Your task to perform on an android device: Go to ESPN.com Image 0: 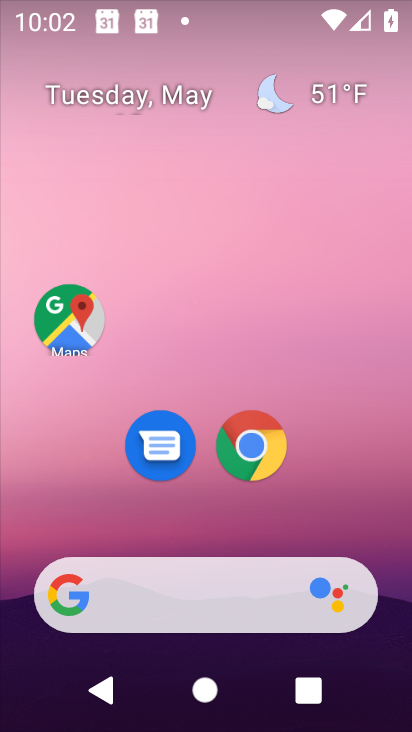
Step 0: click (259, 452)
Your task to perform on an android device: Go to ESPN.com Image 1: 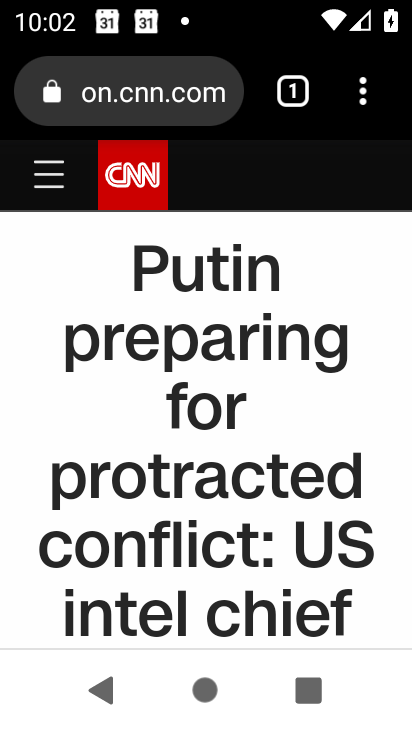
Step 1: click (157, 111)
Your task to perform on an android device: Go to ESPN.com Image 2: 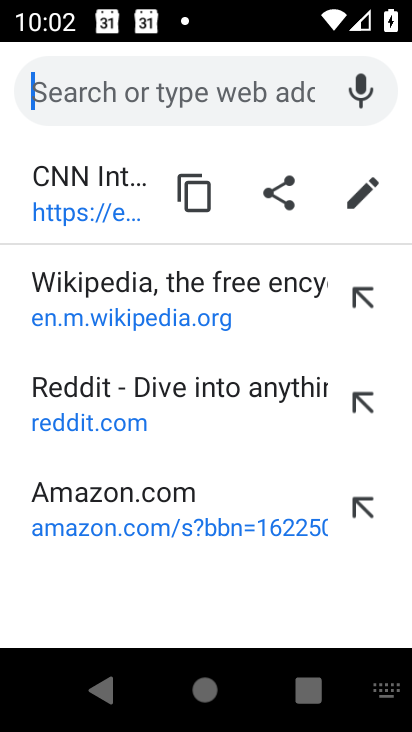
Step 2: type "espn.com"
Your task to perform on an android device: Go to ESPN.com Image 3: 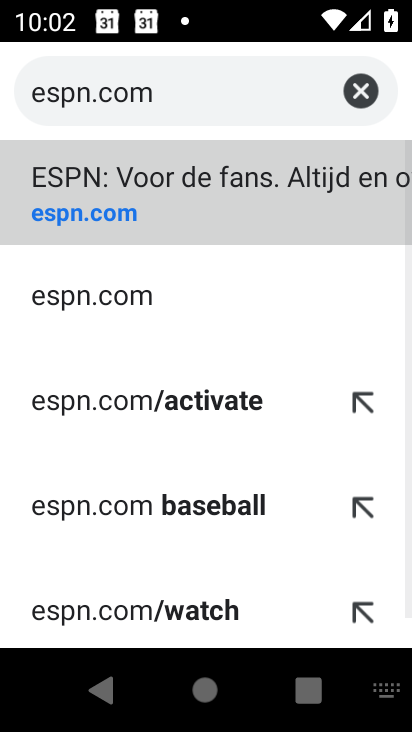
Step 3: click (193, 181)
Your task to perform on an android device: Go to ESPN.com Image 4: 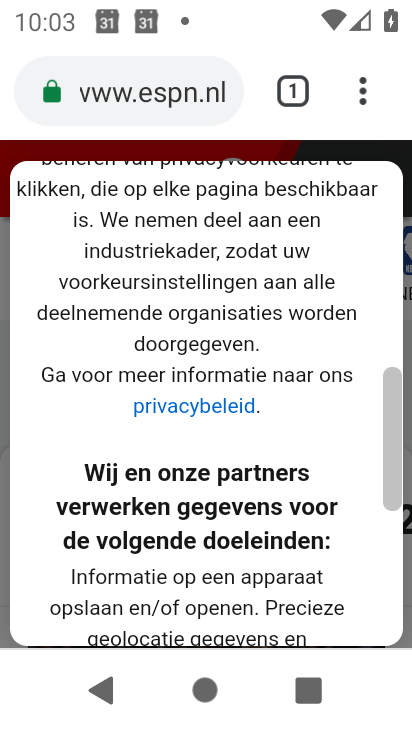
Step 4: task complete